Your task to perform on an android device: What is the recent news? Image 0: 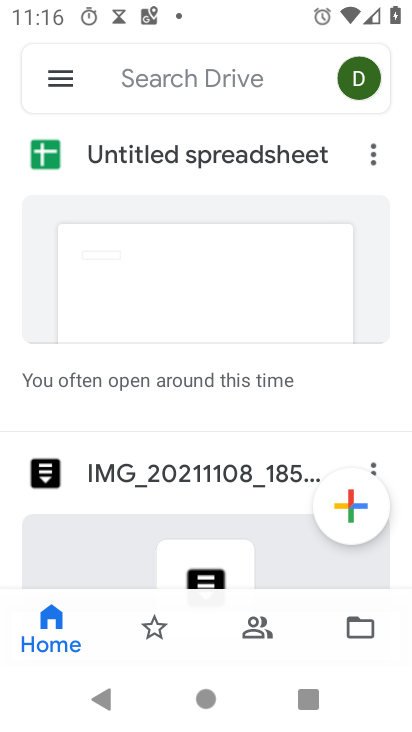
Step 0: press home button
Your task to perform on an android device: What is the recent news? Image 1: 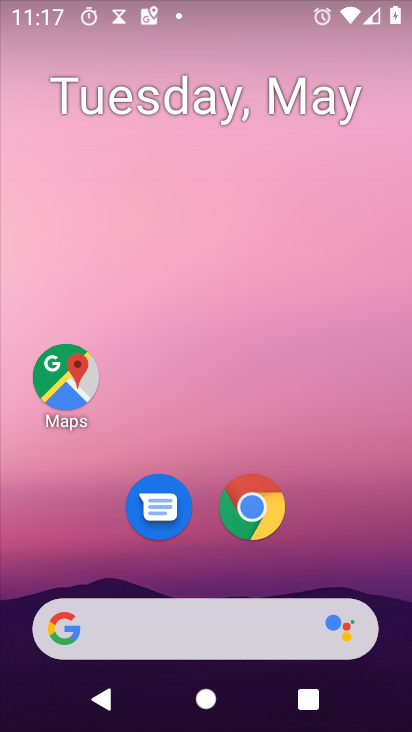
Step 1: click (239, 631)
Your task to perform on an android device: What is the recent news? Image 2: 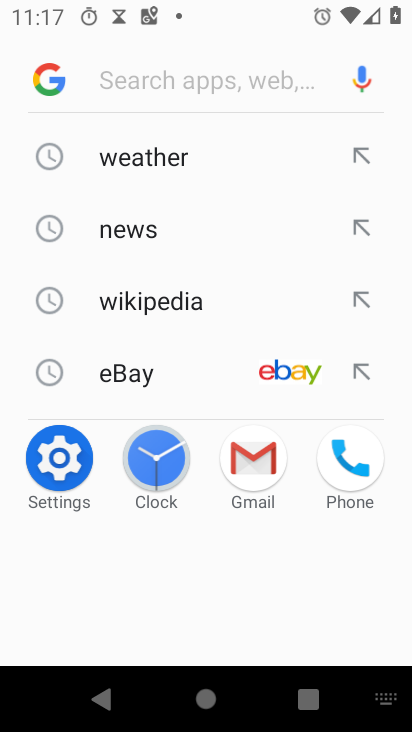
Step 2: click (107, 223)
Your task to perform on an android device: What is the recent news? Image 3: 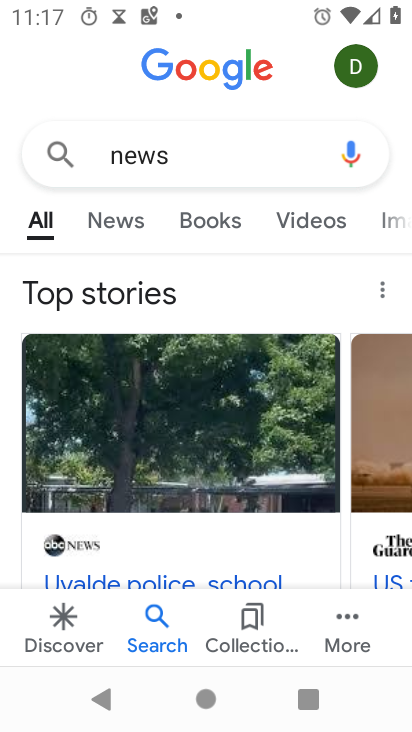
Step 3: task complete